Your task to perform on an android device: move an email to a new category in the gmail app Image 0: 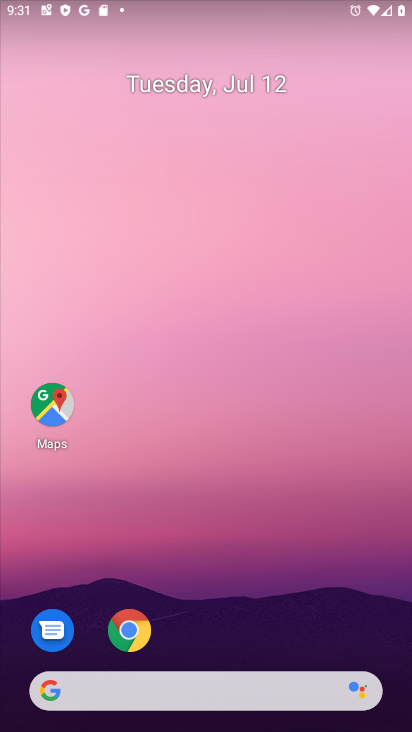
Step 0: drag from (205, 629) to (270, 121)
Your task to perform on an android device: move an email to a new category in the gmail app Image 1: 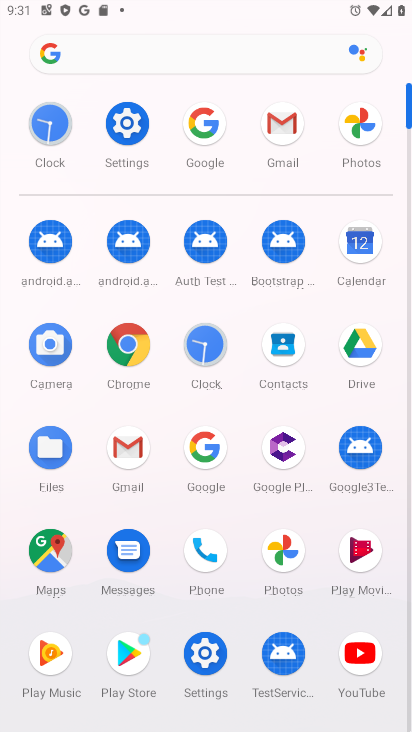
Step 1: click (283, 122)
Your task to perform on an android device: move an email to a new category in the gmail app Image 2: 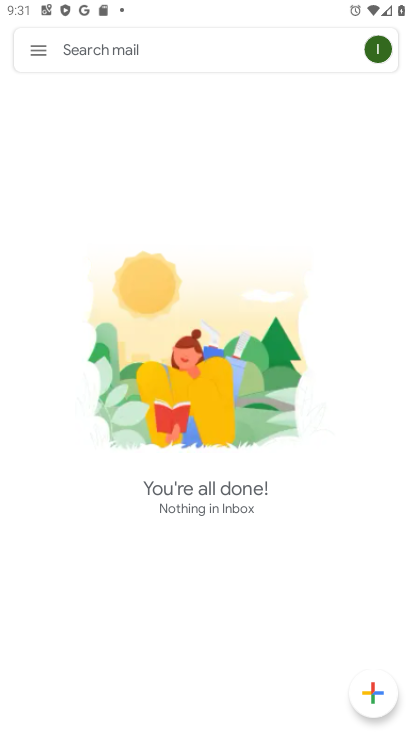
Step 2: click (39, 49)
Your task to perform on an android device: move an email to a new category in the gmail app Image 3: 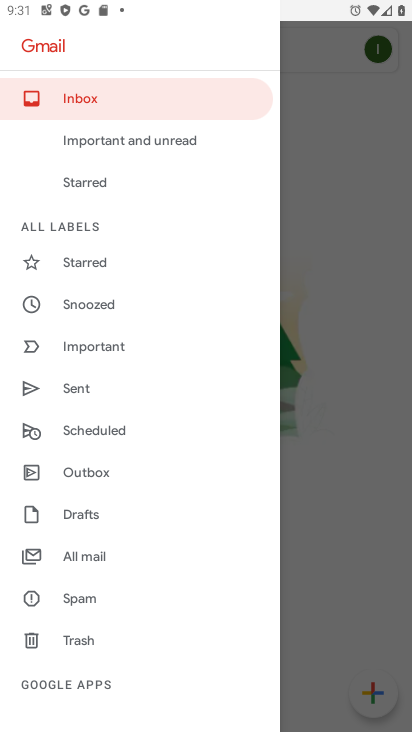
Step 3: click (71, 546)
Your task to perform on an android device: move an email to a new category in the gmail app Image 4: 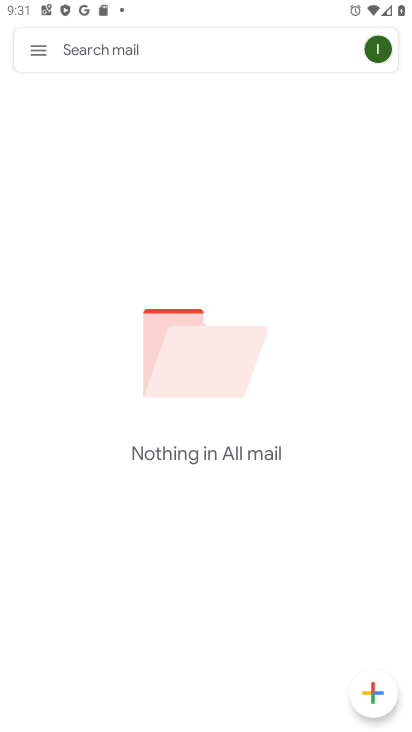
Step 4: task complete